Your task to perform on an android device: Add bose soundsport free to the cart on ebay, then select checkout. Image 0: 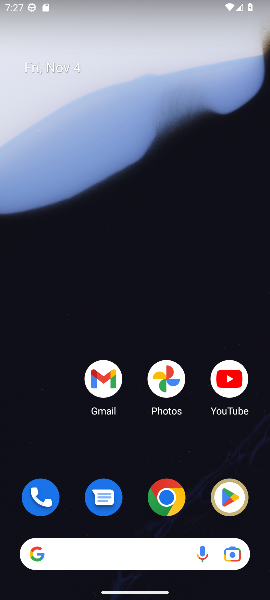
Step 0: click (173, 498)
Your task to perform on an android device: Add bose soundsport free to the cart on ebay, then select checkout. Image 1: 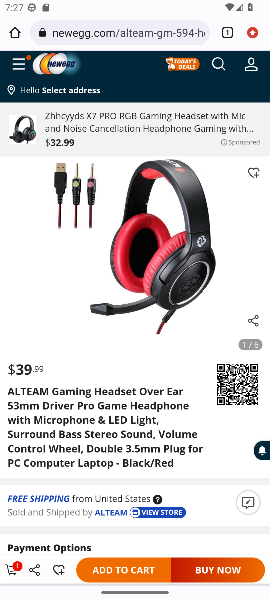
Step 1: click (93, 35)
Your task to perform on an android device: Add bose soundsport free to the cart on ebay, then select checkout. Image 2: 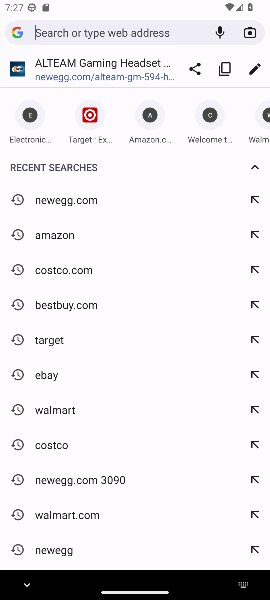
Step 2: click (56, 375)
Your task to perform on an android device: Add bose soundsport free to the cart on ebay, then select checkout. Image 3: 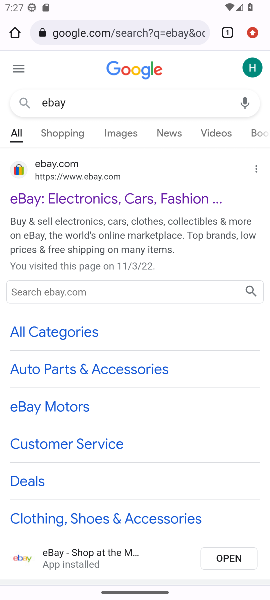
Step 3: click (83, 194)
Your task to perform on an android device: Add bose soundsport free to the cart on ebay, then select checkout. Image 4: 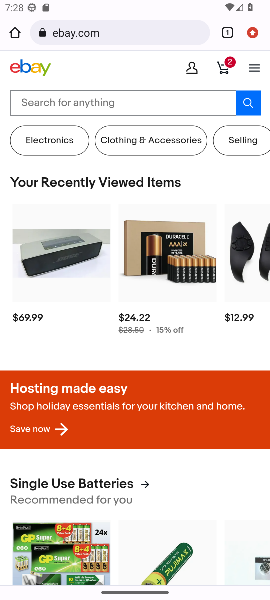
Step 4: click (69, 106)
Your task to perform on an android device: Add bose soundsport free to the cart on ebay, then select checkout. Image 5: 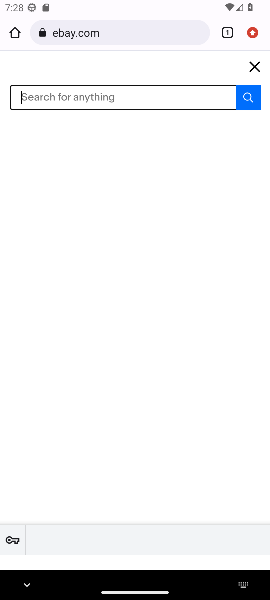
Step 5: type "bose soundsport free"
Your task to perform on an android device: Add bose soundsport free to the cart on ebay, then select checkout. Image 6: 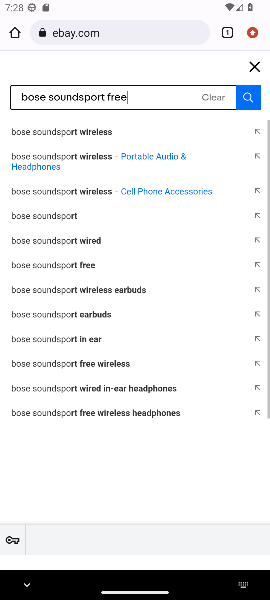
Step 6: click (253, 104)
Your task to perform on an android device: Add bose soundsport free to the cart on ebay, then select checkout. Image 7: 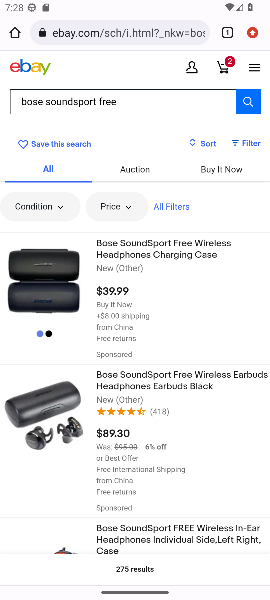
Step 7: click (44, 286)
Your task to perform on an android device: Add bose soundsport free to the cart on ebay, then select checkout. Image 8: 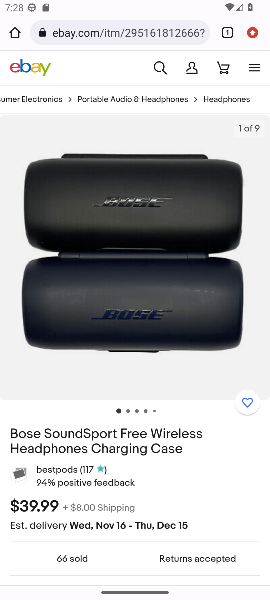
Step 8: drag from (156, 477) to (158, 237)
Your task to perform on an android device: Add bose soundsport free to the cart on ebay, then select checkout. Image 9: 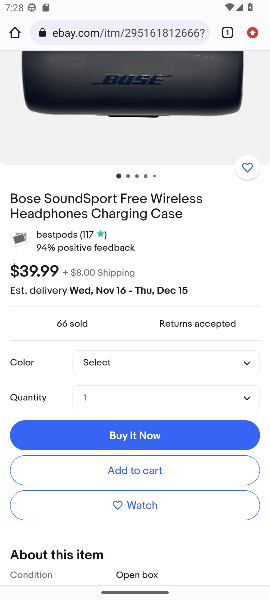
Step 9: click (136, 471)
Your task to perform on an android device: Add bose soundsport free to the cart on ebay, then select checkout. Image 10: 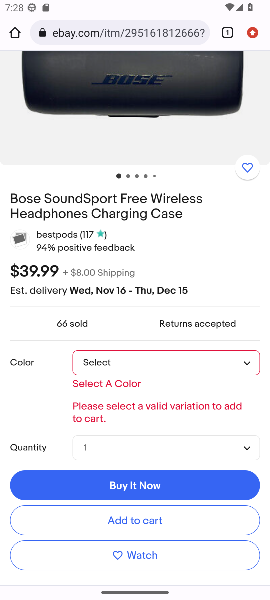
Step 10: click (243, 364)
Your task to perform on an android device: Add bose soundsport free to the cart on ebay, then select checkout. Image 11: 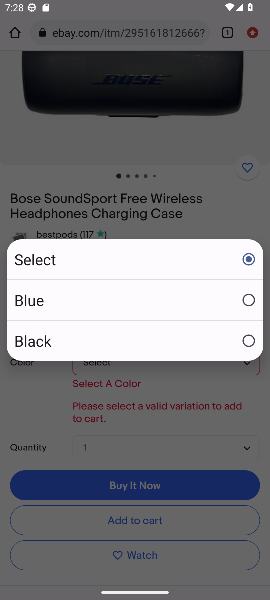
Step 11: click (88, 305)
Your task to perform on an android device: Add bose soundsport free to the cart on ebay, then select checkout. Image 12: 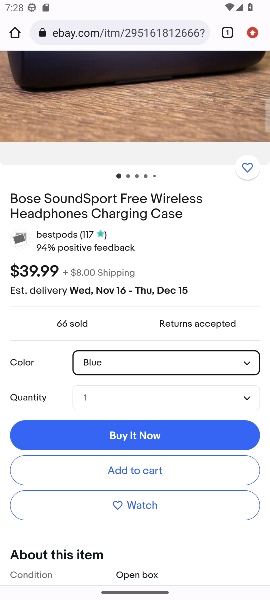
Step 12: click (150, 473)
Your task to perform on an android device: Add bose soundsport free to the cart on ebay, then select checkout. Image 13: 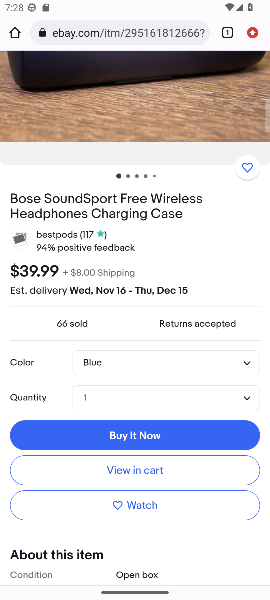
Step 13: click (150, 473)
Your task to perform on an android device: Add bose soundsport free to the cart on ebay, then select checkout. Image 14: 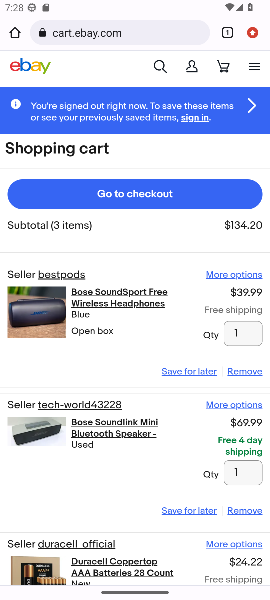
Step 14: click (123, 197)
Your task to perform on an android device: Add bose soundsport free to the cart on ebay, then select checkout. Image 15: 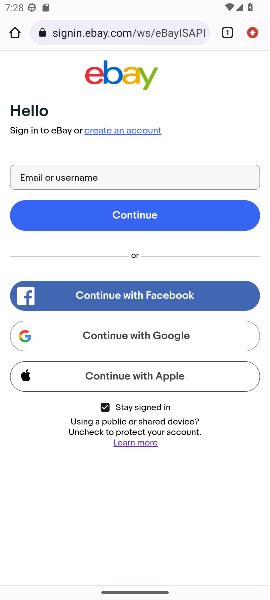
Step 15: task complete